Your task to perform on an android device: Show me popular games on the Play Store Image 0: 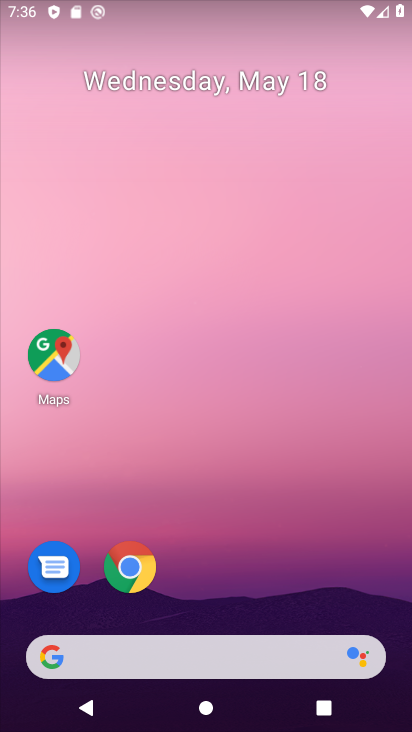
Step 0: drag from (235, 640) to (237, 11)
Your task to perform on an android device: Show me popular games on the Play Store Image 1: 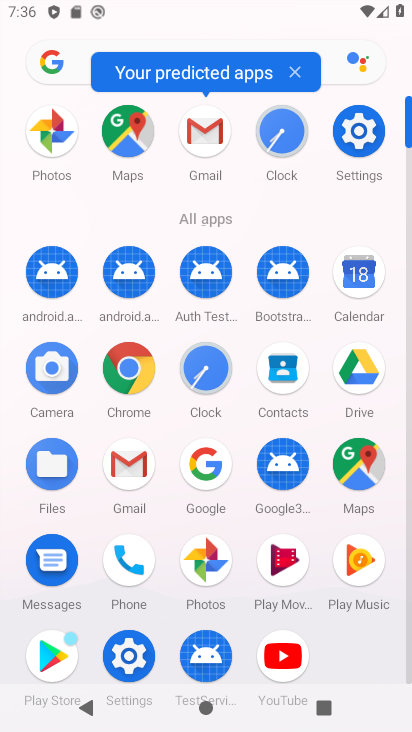
Step 1: click (44, 649)
Your task to perform on an android device: Show me popular games on the Play Store Image 2: 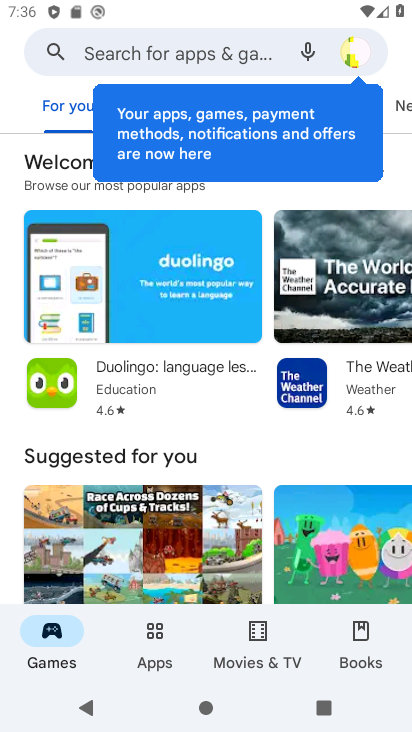
Step 2: drag from (233, 575) to (208, 227)
Your task to perform on an android device: Show me popular games on the Play Store Image 3: 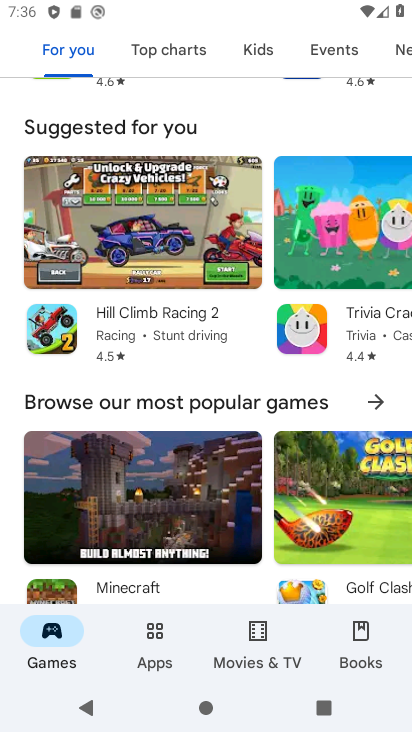
Step 3: click (362, 405)
Your task to perform on an android device: Show me popular games on the Play Store Image 4: 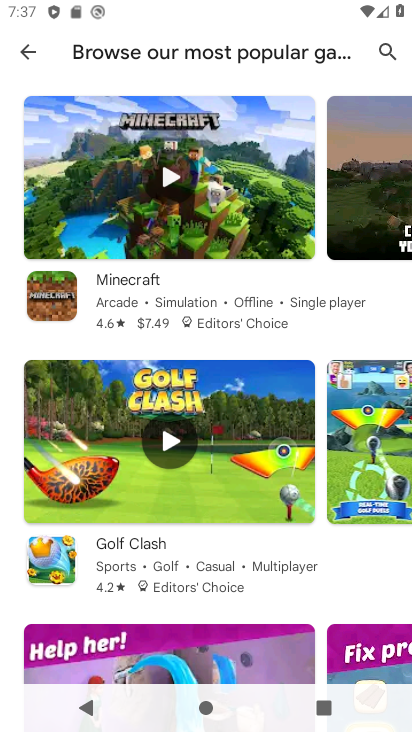
Step 4: task complete